Your task to perform on an android device: install app "McDonald's" Image 0: 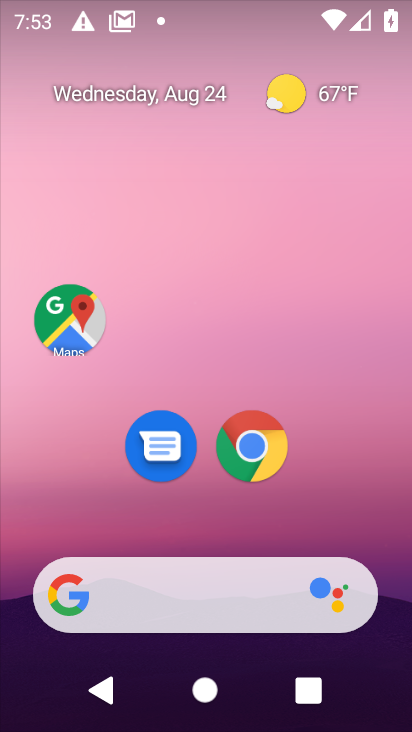
Step 0: drag from (209, 529) to (227, 6)
Your task to perform on an android device: install app "McDonald's" Image 1: 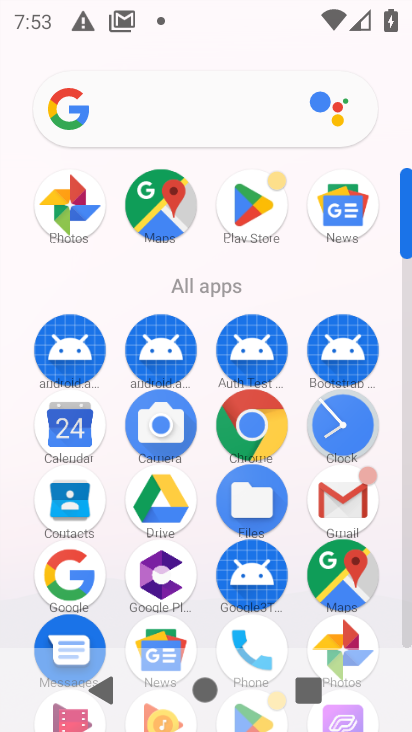
Step 1: click (248, 197)
Your task to perform on an android device: install app "McDonald's" Image 2: 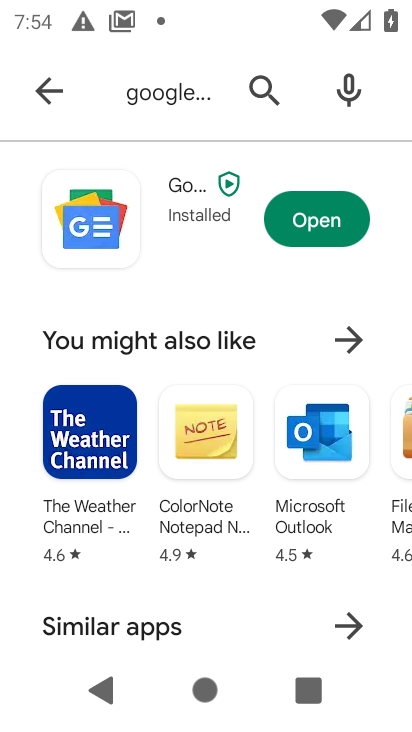
Step 2: click (248, 79)
Your task to perform on an android device: install app "McDonald's" Image 3: 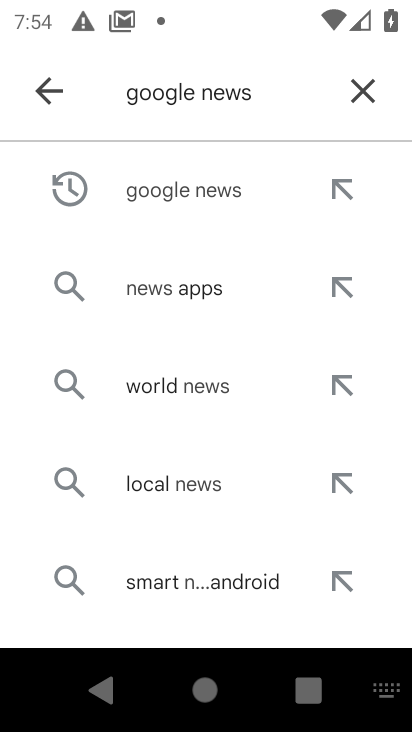
Step 3: click (352, 103)
Your task to perform on an android device: install app "McDonald's" Image 4: 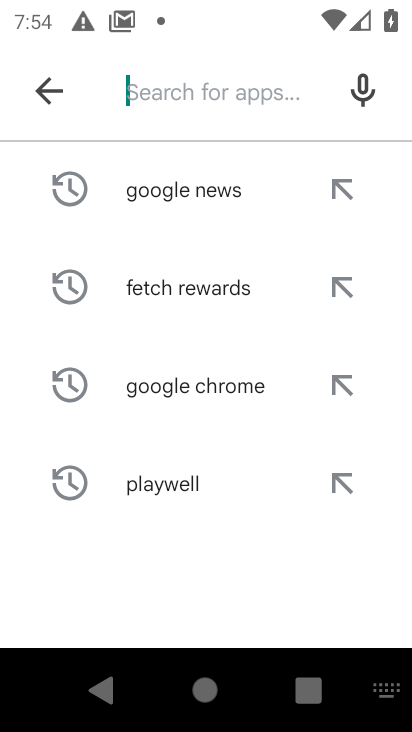
Step 4: type "McDonald's"
Your task to perform on an android device: install app "McDonald's" Image 5: 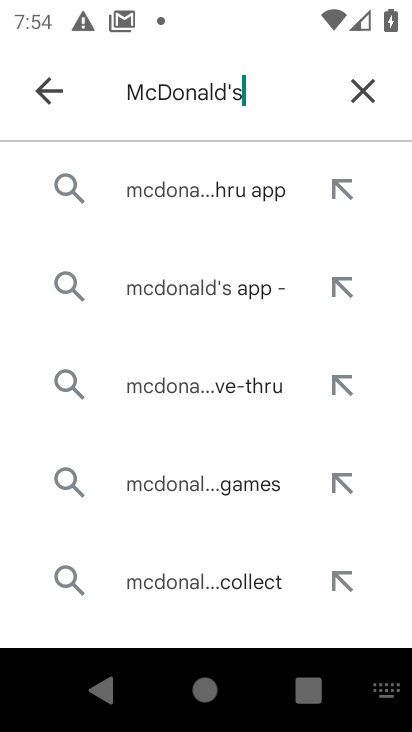
Step 5: click (207, 290)
Your task to perform on an android device: install app "McDonald's" Image 6: 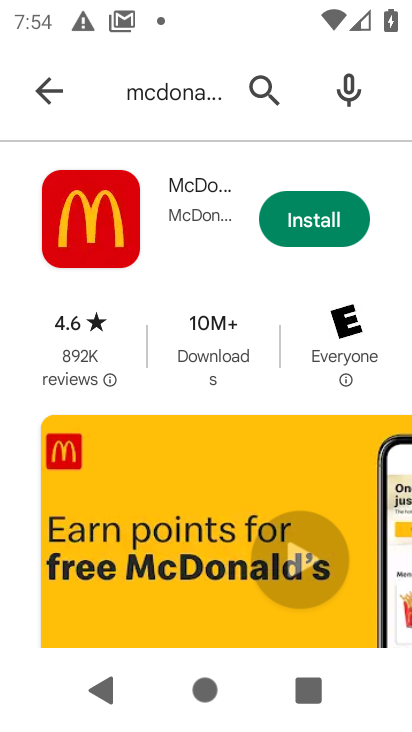
Step 6: click (296, 206)
Your task to perform on an android device: install app "McDonald's" Image 7: 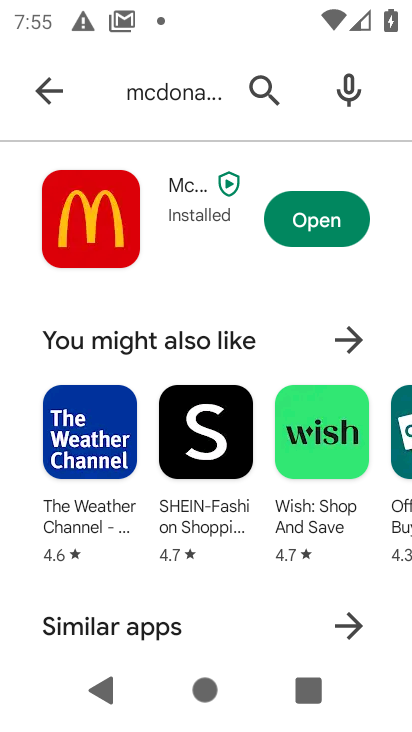
Step 7: click (308, 230)
Your task to perform on an android device: install app "McDonald's" Image 8: 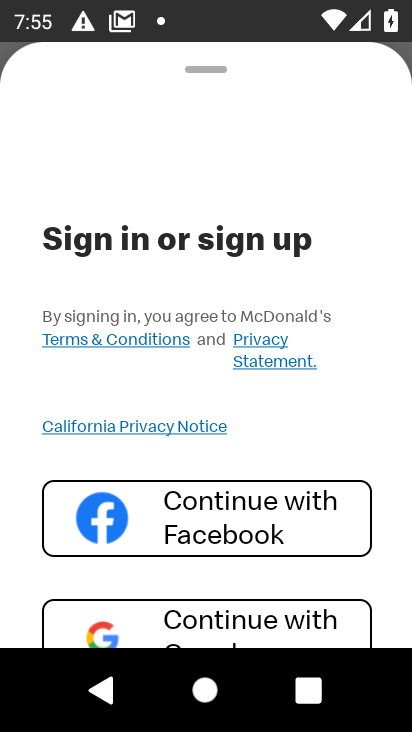
Step 8: click (201, 622)
Your task to perform on an android device: install app "McDonald's" Image 9: 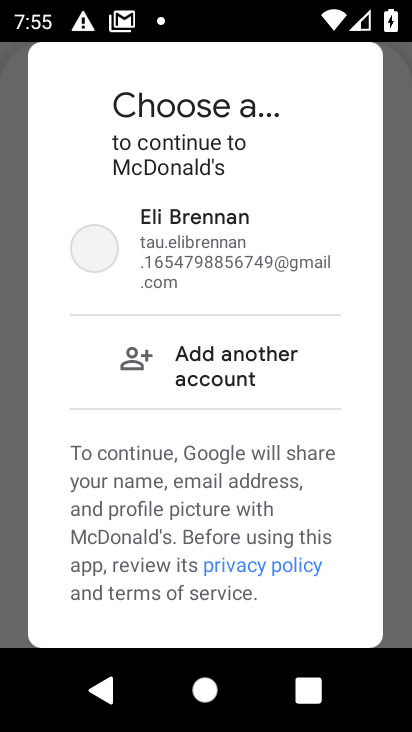
Step 9: click (198, 256)
Your task to perform on an android device: install app "McDonald's" Image 10: 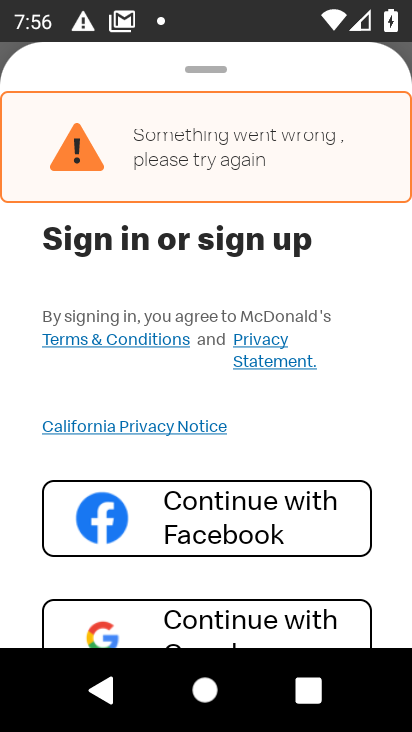
Step 10: task complete